Your task to perform on an android device: Open privacy settings Image 0: 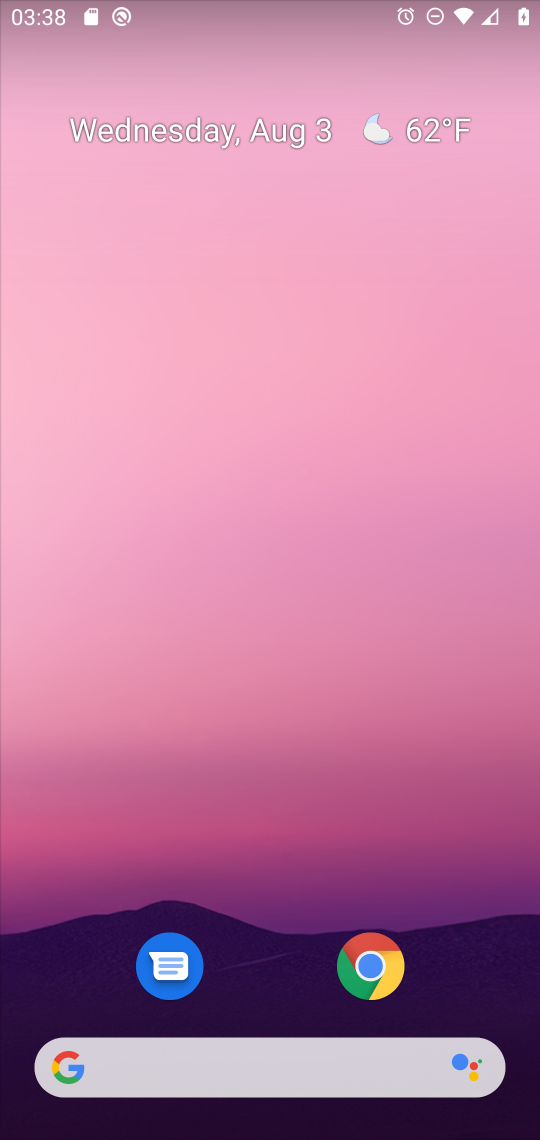
Step 0: drag from (287, 933) to (349, 313)
Your task to perform on an android device: Open privacy settings Image 1: 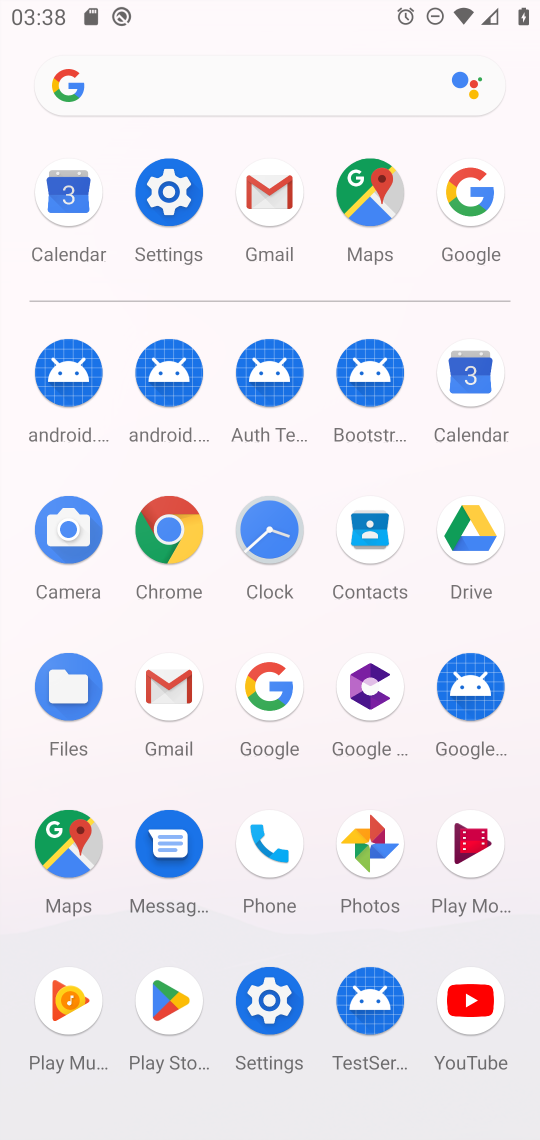
Step 1: click (163, 224)
Your task to perform on an android device: Open privacy settings Image 2: 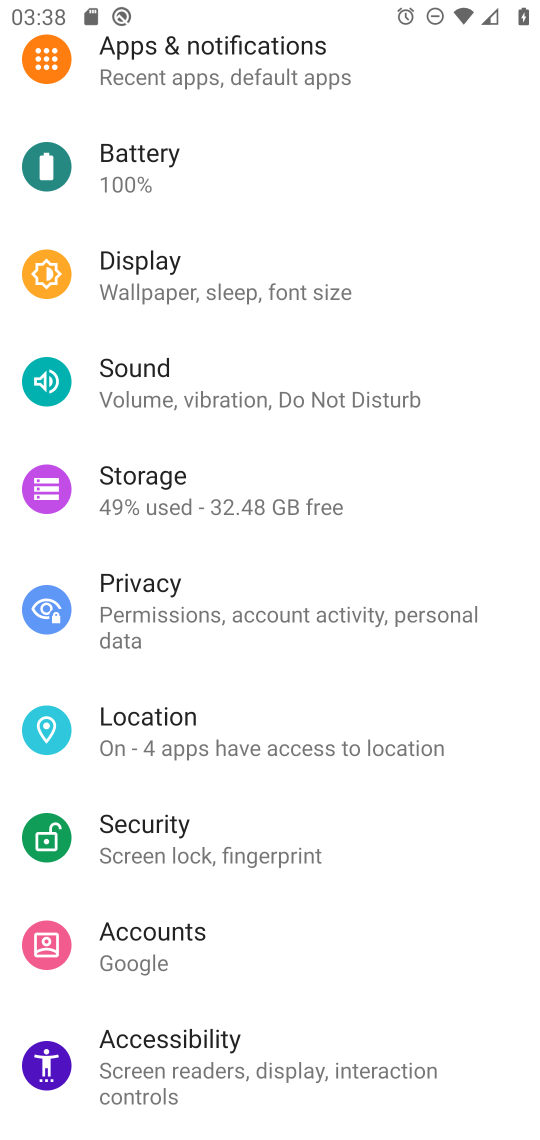
Step 2: click (191, 603)
Your task to perform on an android device: Open privacy settings Image 3: 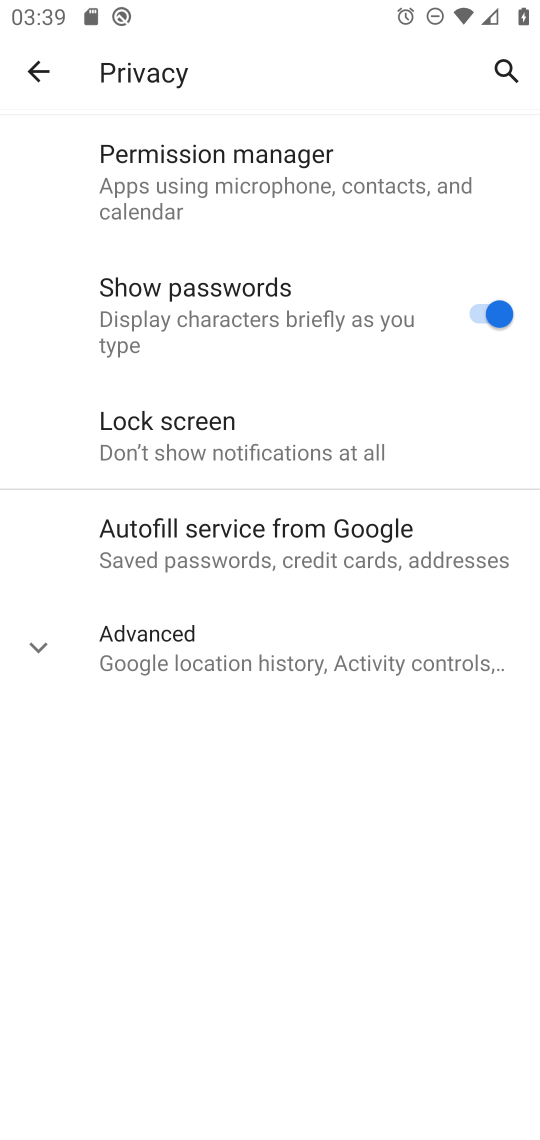
Step 3: task complete